Your task to perform on an android device: toggle notification dots Image 0: 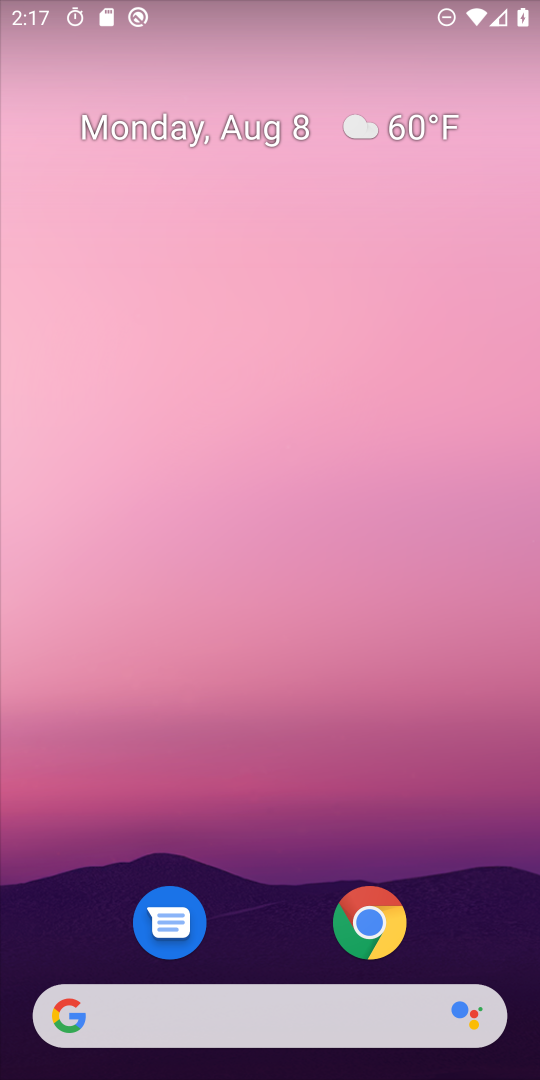
Step 0: drag from (302, 606) to (304, 90)
Your task to perform on an android device: toggle notification dots Image 1: 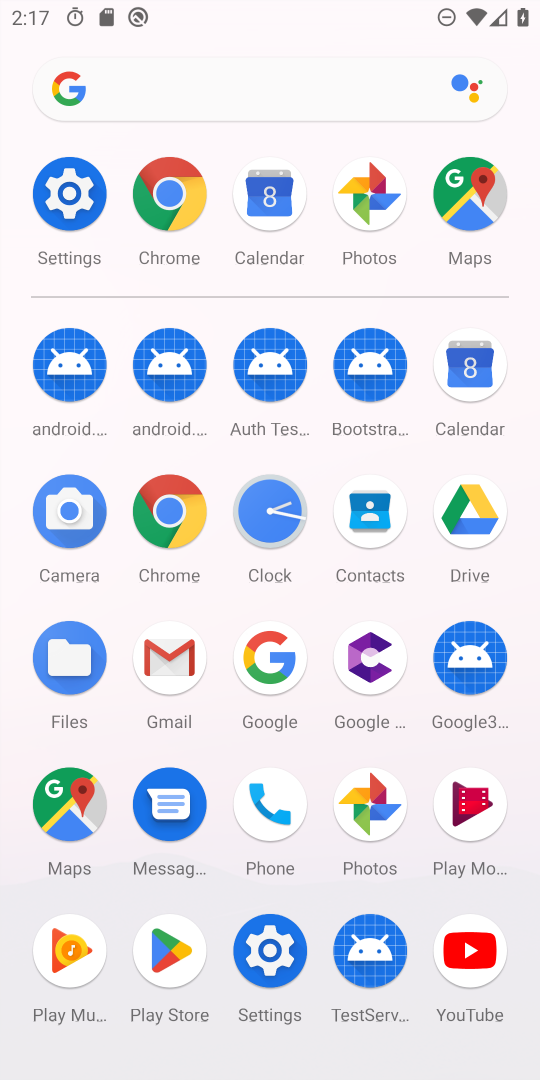
Step 1: click (75, 197)
Your task to perform on an android device: toggle notification dots Image 2: 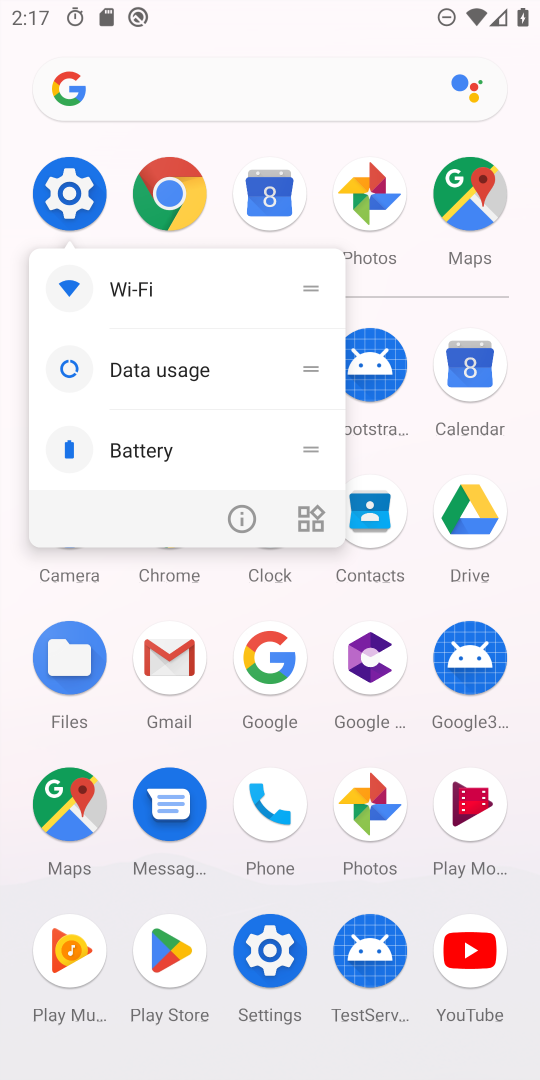
Step 2: click (70, 204)
Your task to perform on an android device: toggle notification dots Image 3: 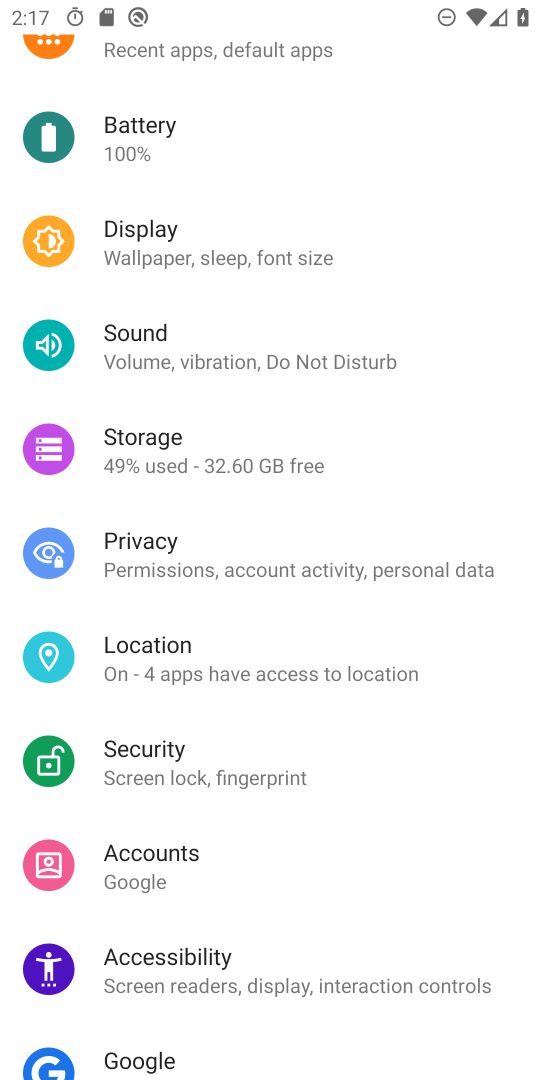
Step 3: drag from (279, 171) to (315, 719)
Your task to perform on an android device: toggle notification dots Image 4: 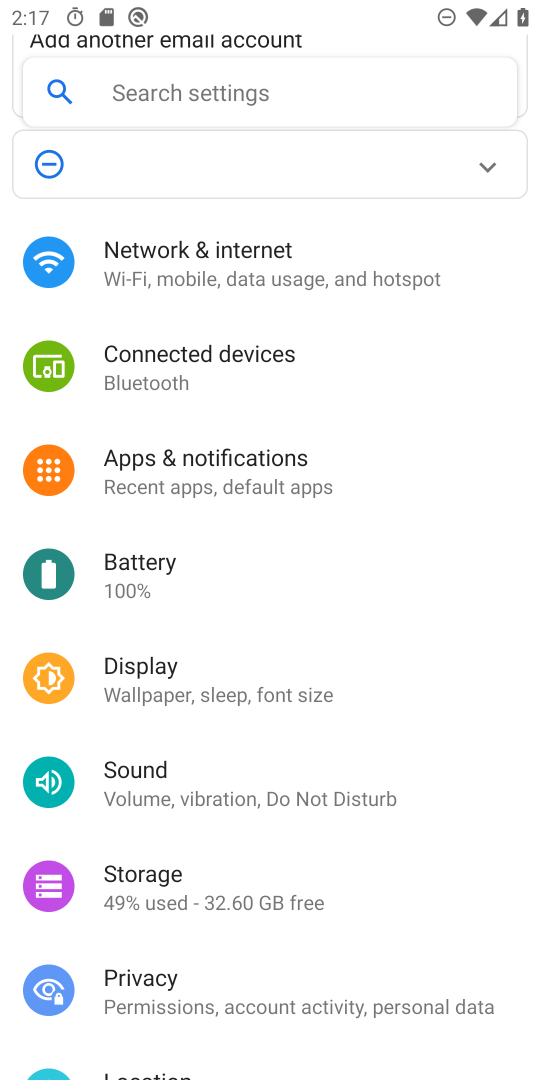
Step 4: click (263, 426)
Your task to perform on an android device: toggle notification dots Image 5: 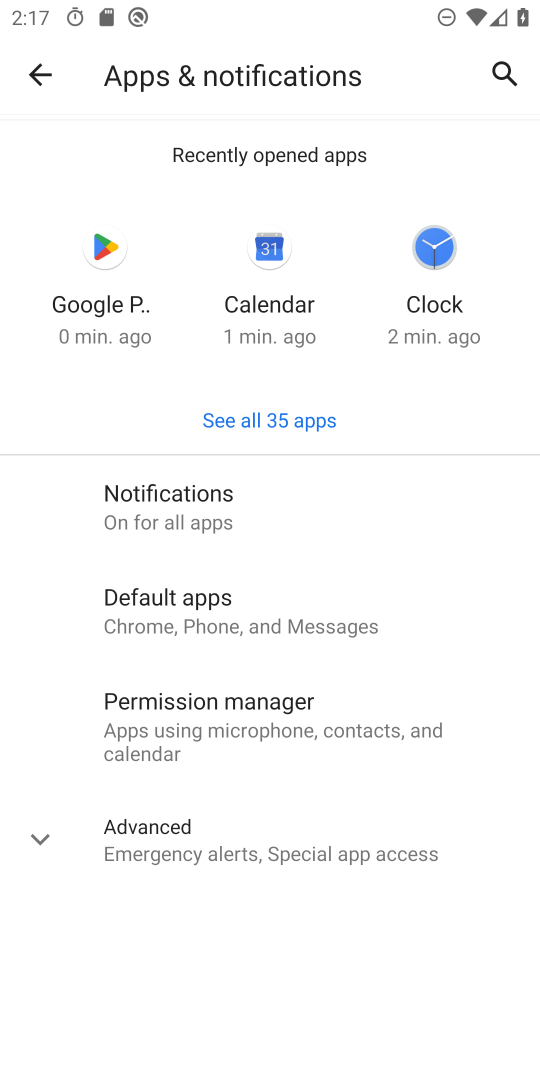
Step 5: click (206, 516)
Your task to perform on an android device: toggle notification dots Image 6: 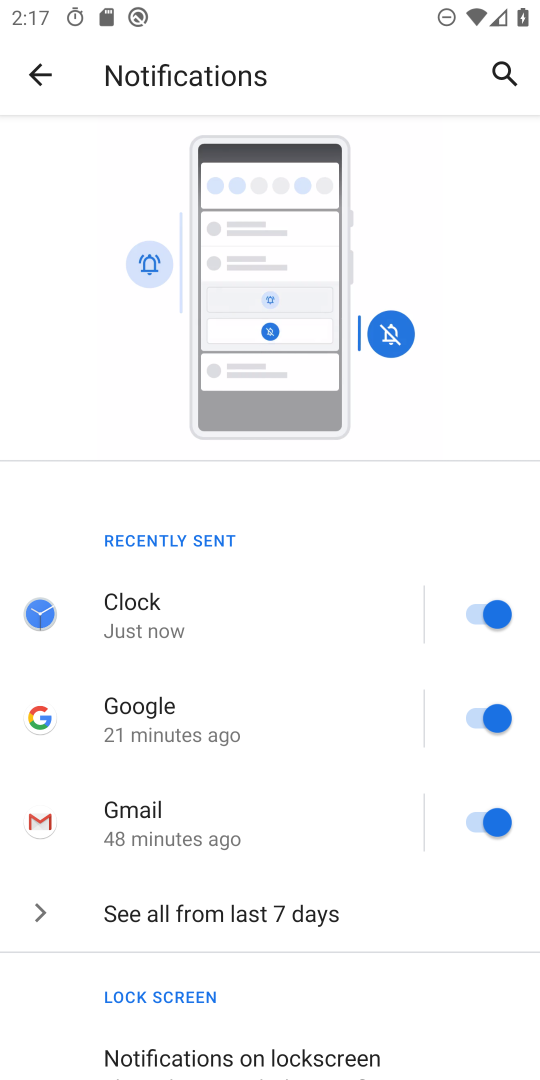
Step 6: drag from (300, 844) to (367, 218)
Your task to perform on an android device: toggle notification dots Image 7: 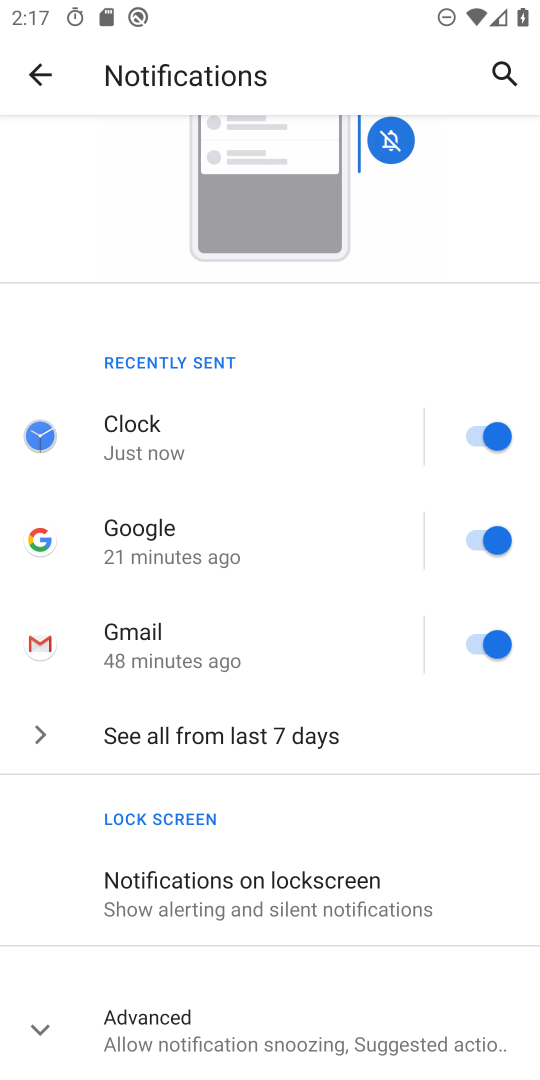
Step 7: click (277, 1031)
Your task to perform on an android device: toggle notification dots Image 8: 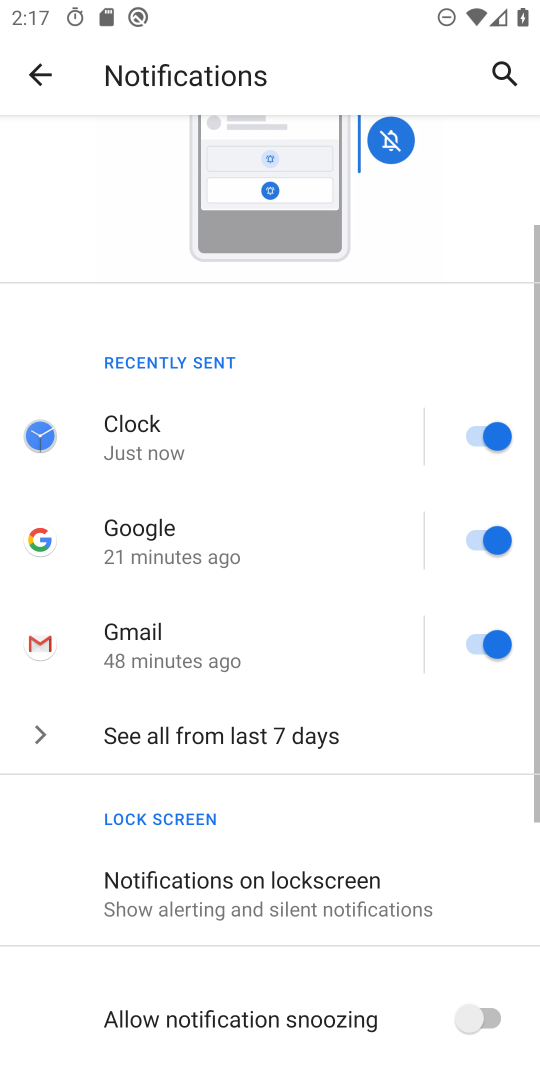
Step 8: drag from (329, 875) to (363, 288)
Your task to perform on an android device: toggle notification dots Image 9: 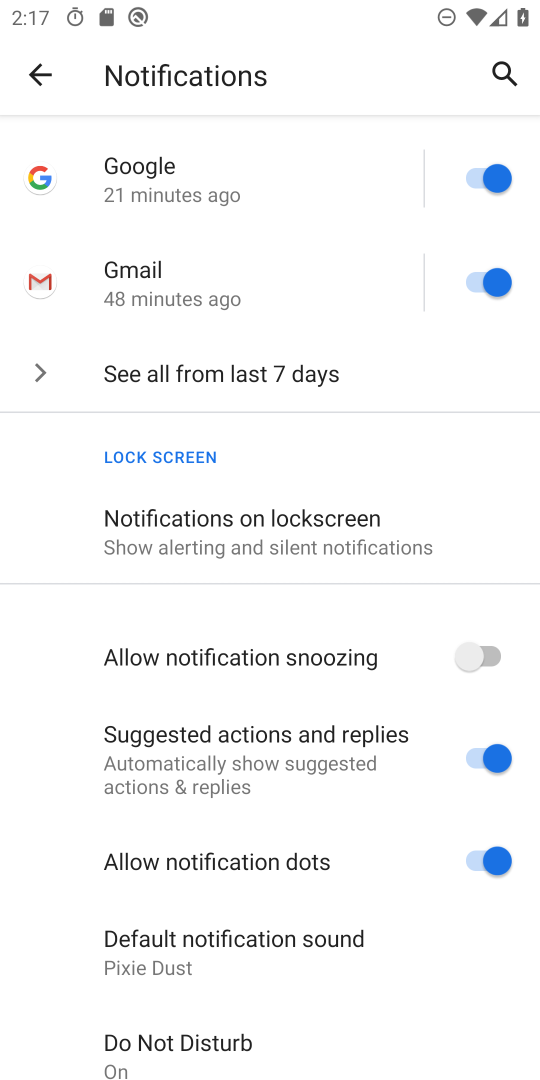
Step 9: click (505, 848)
Your task to perform on an android device: toggle notification dots Image 10: 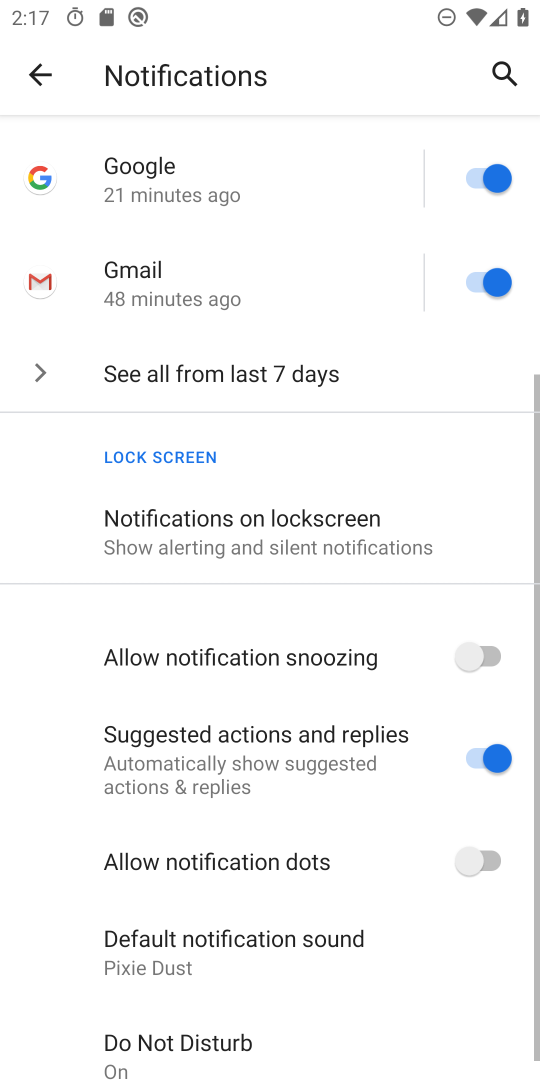
Step 10: task complete